Your task to perform on an android device: Show me popular videos on Youtube Image 0: 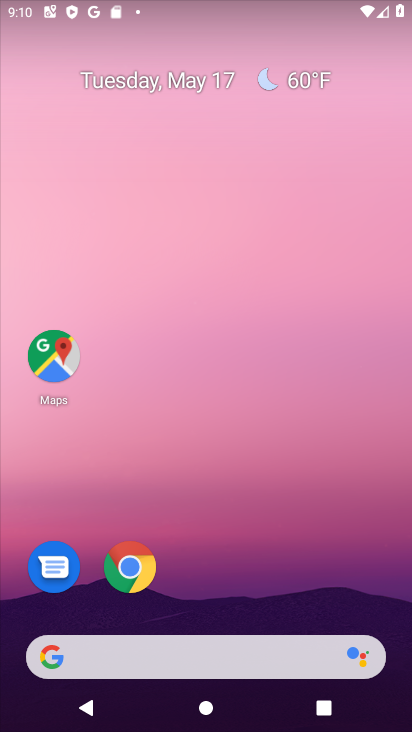
Step 0: drag from (380, 618) to (291, 18)
Your task to perform on an android device: Show me popular videos on Youtube Image 1: 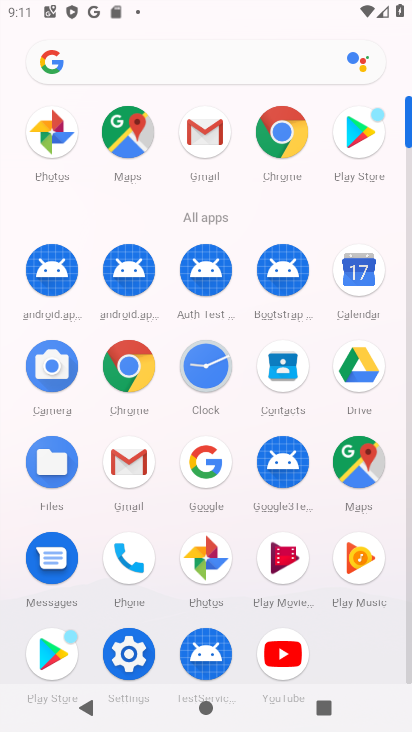
Step 1: click (286, 675)
Your task to perform on an android device: Show me popular videos on Youtube Image 2: 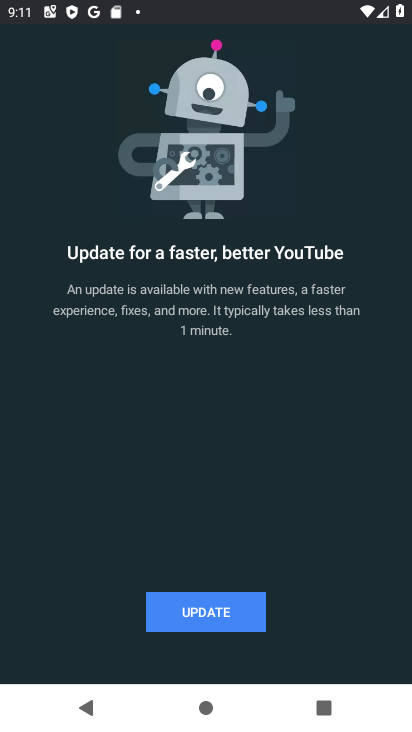
Step 2: click (197, 620)
Your task to perform on an android device: Show me popular videos on Youtube Image 3: 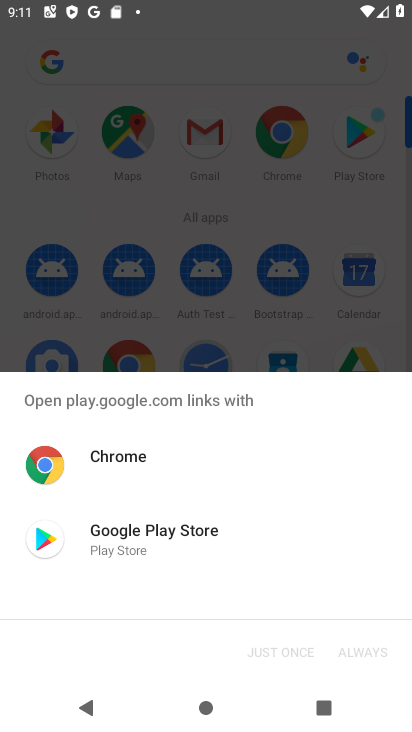
Step 3: click (159, 537)
Your task to perform on an android device: Show me popular videos on Youtube Image 4: 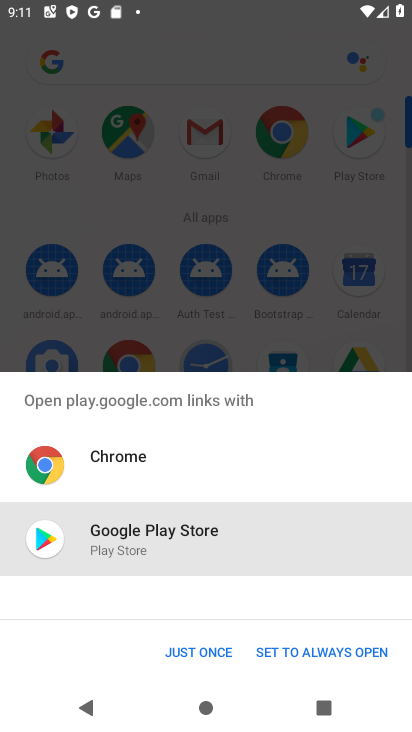
Step 4: click (202, 638)
Your task to perform on an android device: Show me popular videos on Youtube Image 5: 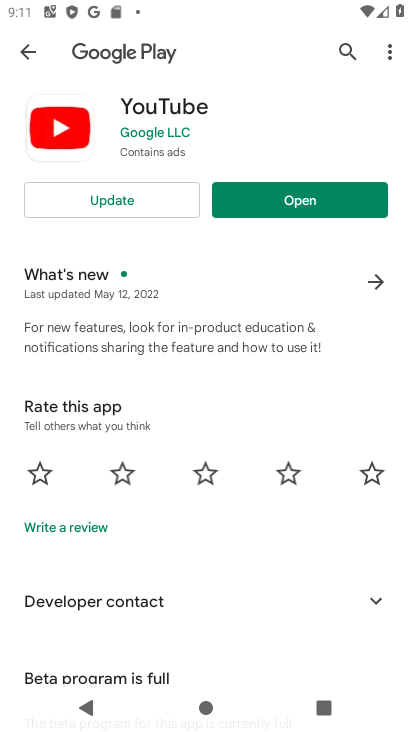
Step 5: click (125, 199)
Your task to perform on an android device: Show me popular videos on Youtube Image 6: 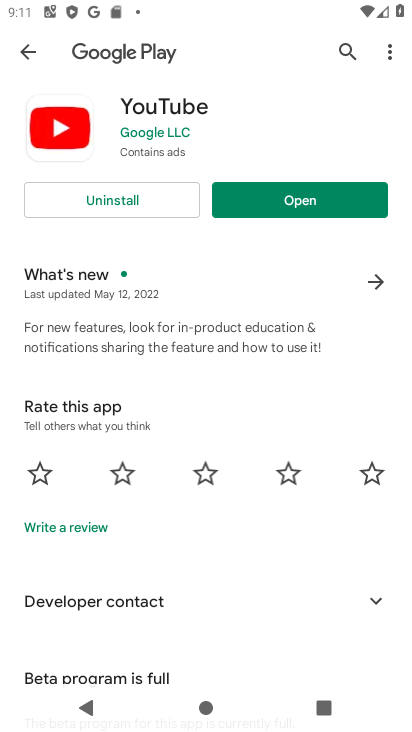
Step 6: click (304, 198)
Your task to perform on an android device: Show me popular videos on Youtube Image 7: 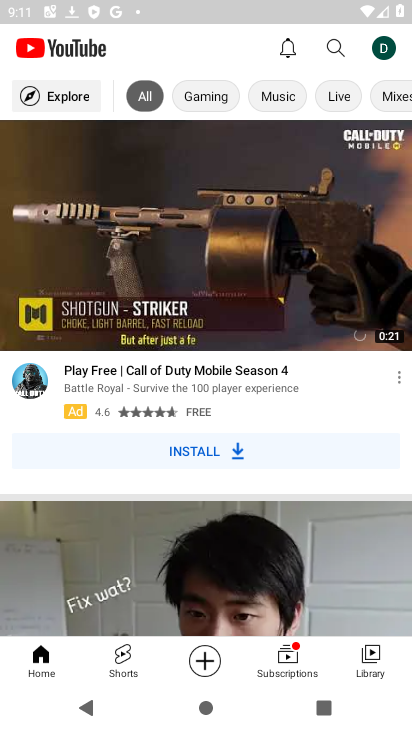
Step 7: task complete